Your task to perform on an android device: add a contact in the contacts app Image 0: 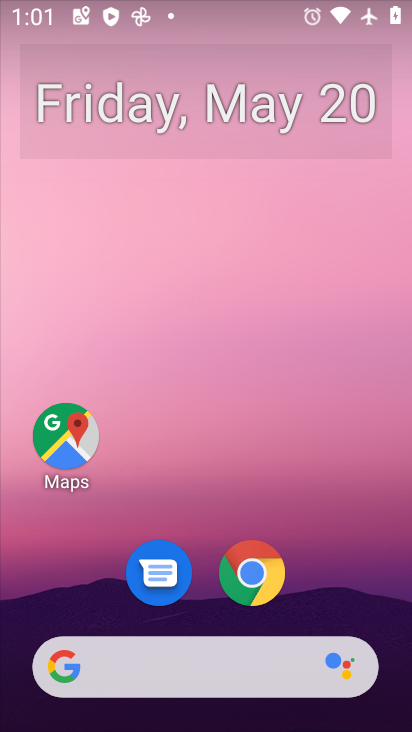
Step 0: drag from (350, 571) to (353, 122)
Your task to perform on an android device: add a contact in the contacts app Image 1: 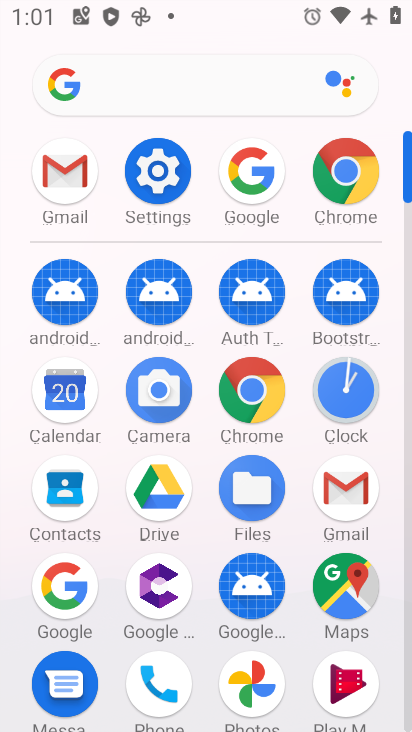
Step 1: click (60, 489)
Your task to perform on an android device: add a contact in the contacts app Image 2: 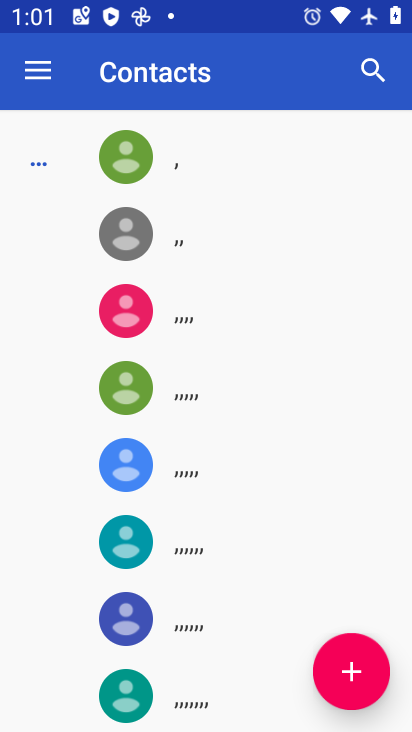
Step 2: click (350, 689)
Your task to perform on an android device: add a contact in the contacts app Image 3: 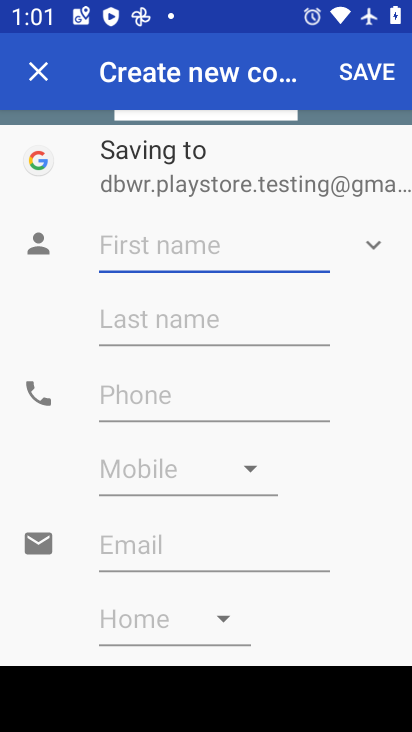
Step 3: type "tyr"
Your task to perform on an android device: add a contact in the contacts app Image 4: 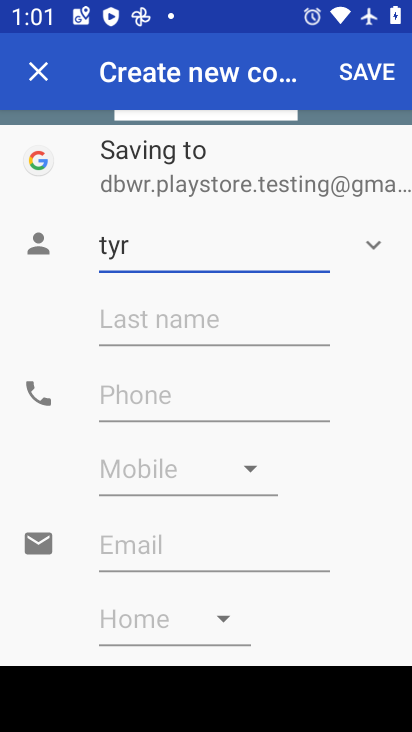
Step 4: click (354, 71)
Your task to perform on an android device: add a contact in the contacts app Image 5: 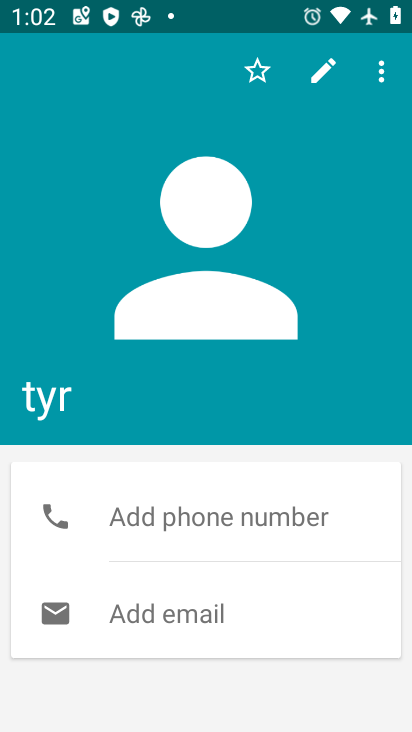
Step 5: task complete